Your task to perform on an android device: turn vacation reply on in the gmail app Image 0: 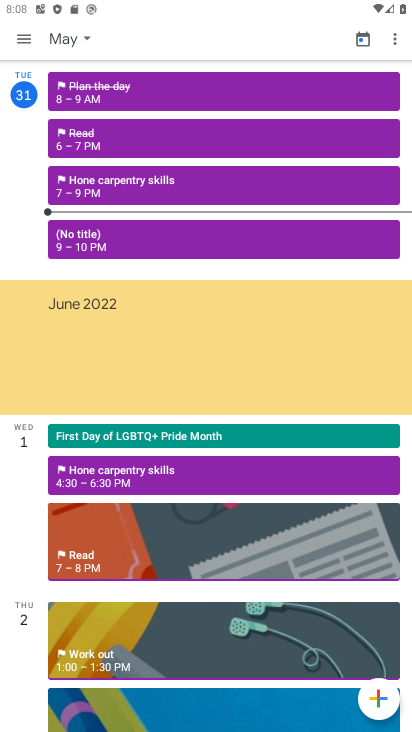
Step 0: press home button
Your task to perform on an android device: turn vacation reply on in the gmail app Image 1: 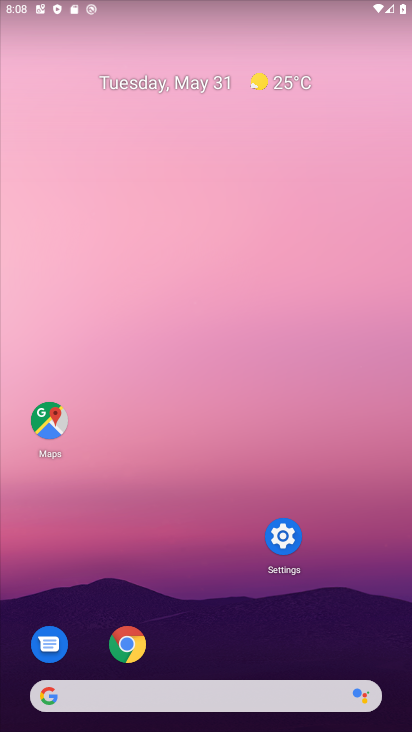
Step 1: drag from (201, 722) to (222, 360)
Your task to perform on an android device: turn vacation reply on in the gmail app Image 2: 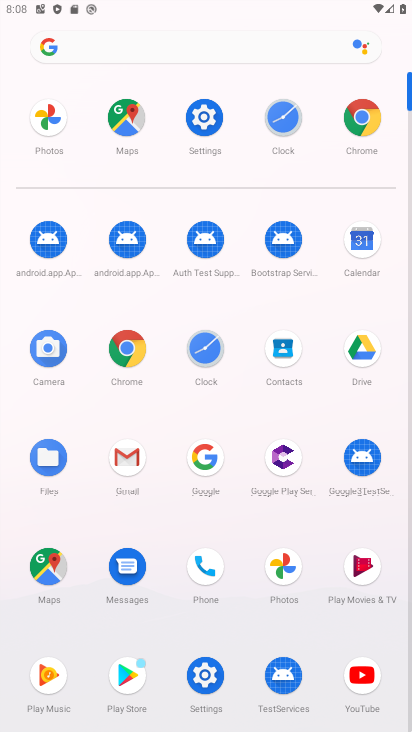
Step 2: click (132, 460)
Your task to perform on an android device: turn vacation reply on in the gmail app Image 3: 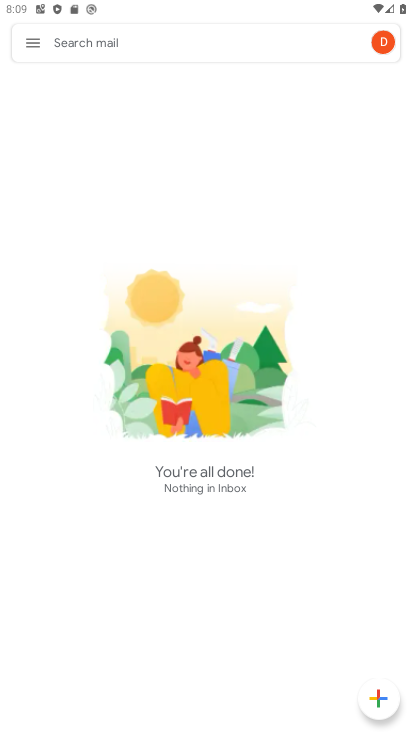
Step 3: click (32, 41)
Your task to perform on an android device: turn vacation reply on in the gmail app Image 4: 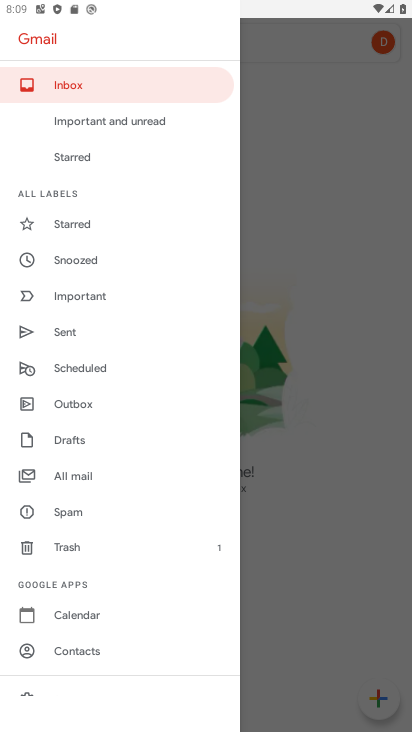
Step 4: drag from (109, 639) to (150, 403)
Your task to perform on an android device: turn vacation reply on in the gmail app Image 5: 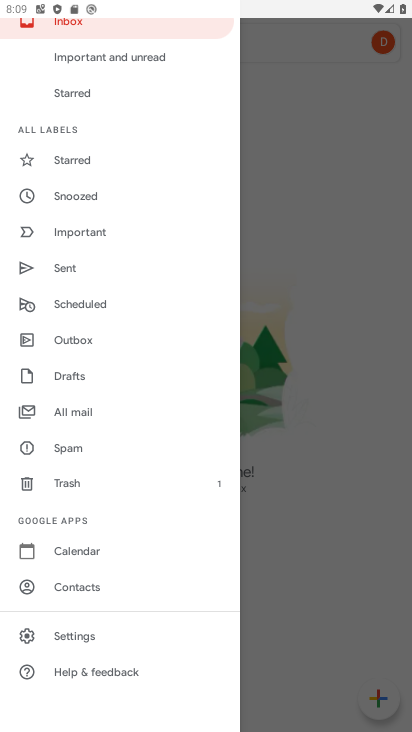
Step 5: click (81, 633)
Your task to perform on an android device: turn vacation reply on in the gmail app Image 6: 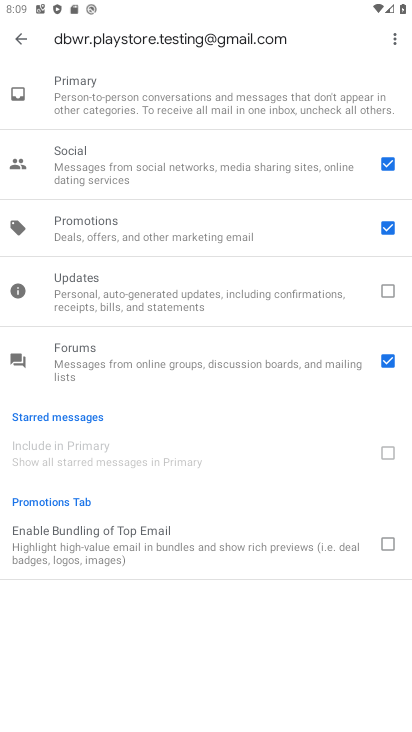
Step 6: click (18, 37)
Your task to perform on an android device: turn vacation reply on in the gmail app Image 7: 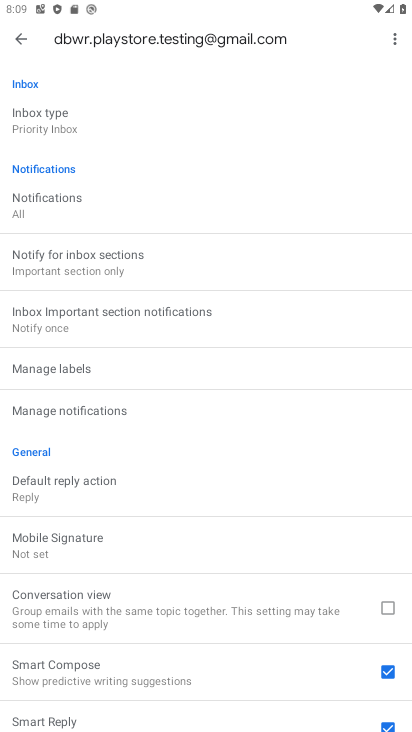
Step 7: drag from (119, 609) to (140, 437)
Your task to perform on an android device: turn vacation reply on in the gmail app Image 8: 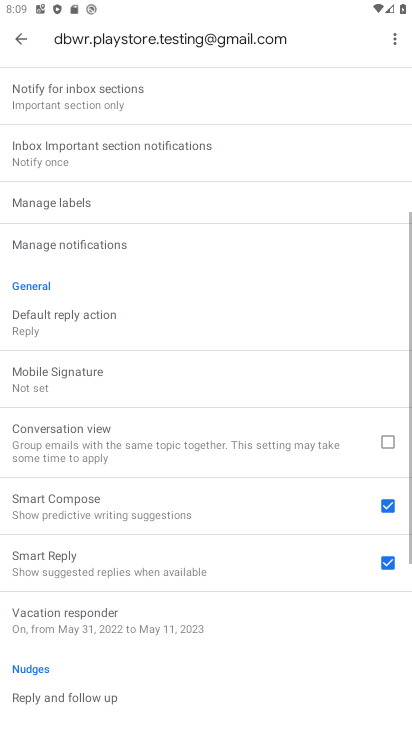
Step 8: drag from (162, 528) to (167, 374)
Your task to perform on an android device: turn vacation reply on in the gmail app Image 9: 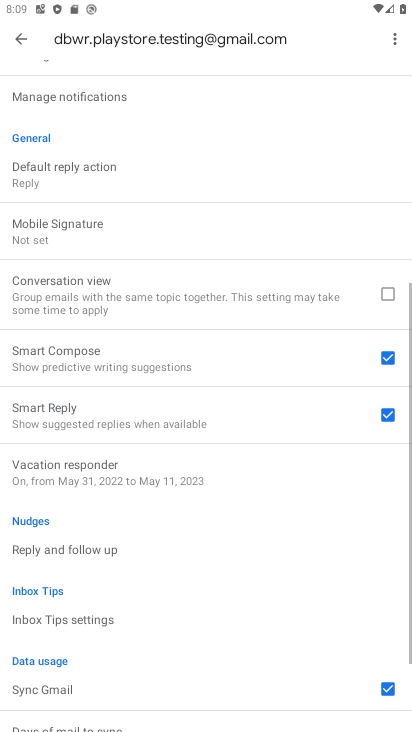
Step 9: click (68, 621)
Your task to perform on an android device: turn vacation reply on in the gmail app Image 10: 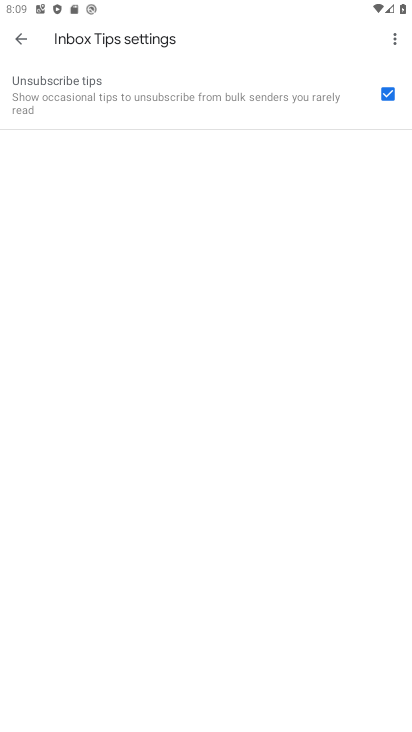
Step 10: task complete